Your task to perform on an android device: toggle notifications settings in the gmail app Image 0: 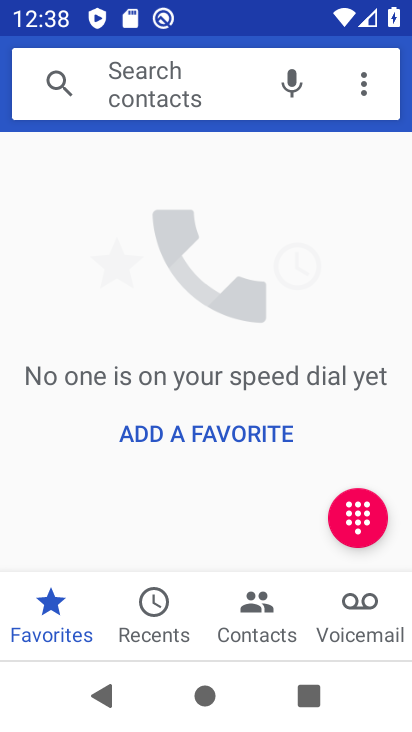
Step 0: press home button
Your task to perform on an android device: toggle notifications settings in the gmail app Image 1: 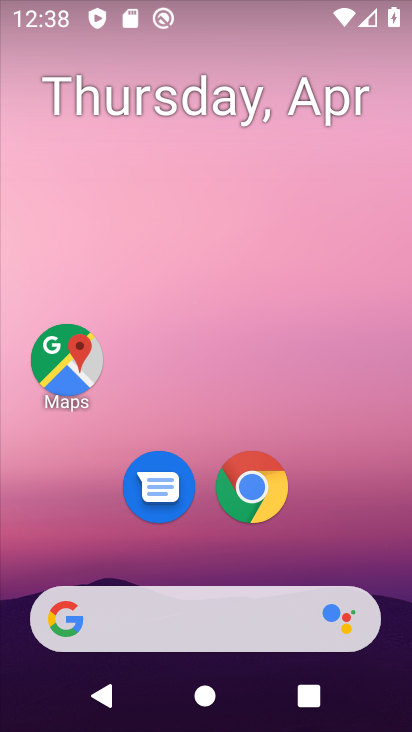
Step 1: drag from (318, 499) to (352, 146)
Your task to perform on an android device: toggle notifications settings in the gmail app Image 2: 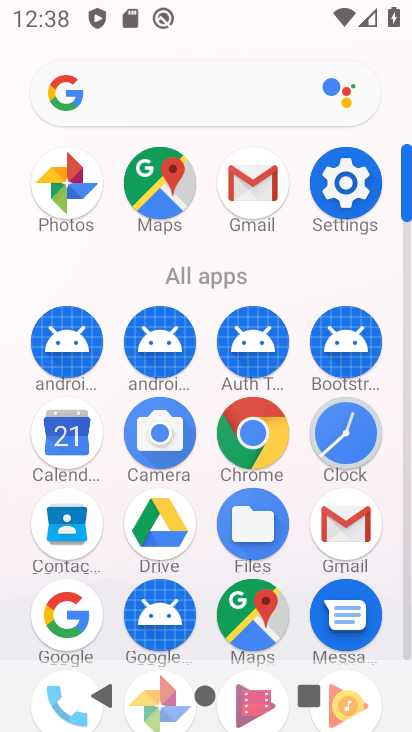
Step 2: click (346, 527)
Your task to perform on an android device: toggle notifications settings in the gmail app Image 3: 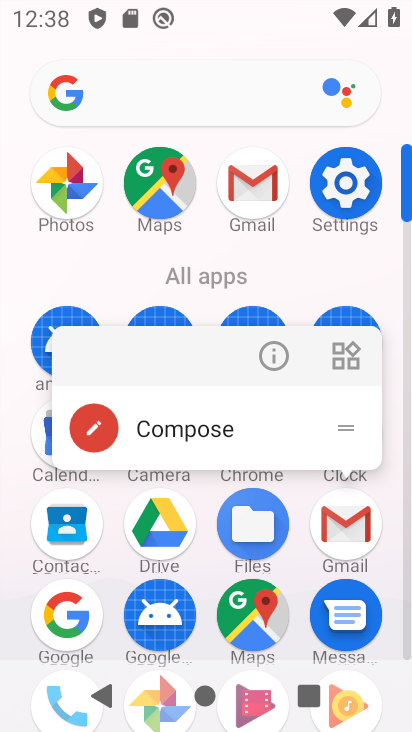
Step 3: click (346, 527)
Your task to perform on an android device: toggle notifications settings in the gmail app Image 4: 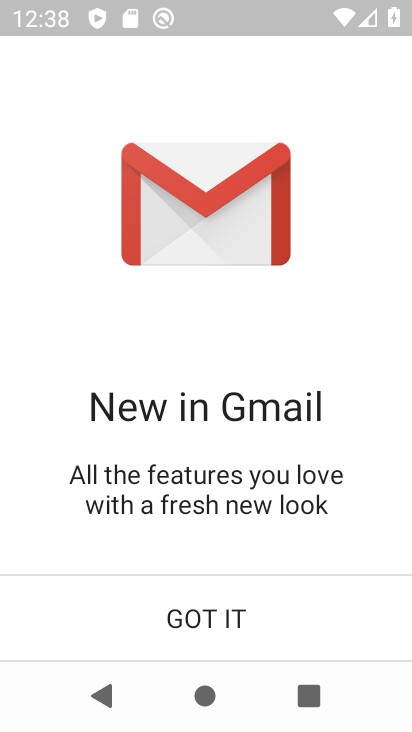
Step 4: click (199, 613)
Your task to perform on an android device: toggle notifications settings in the gmail app Image 5: 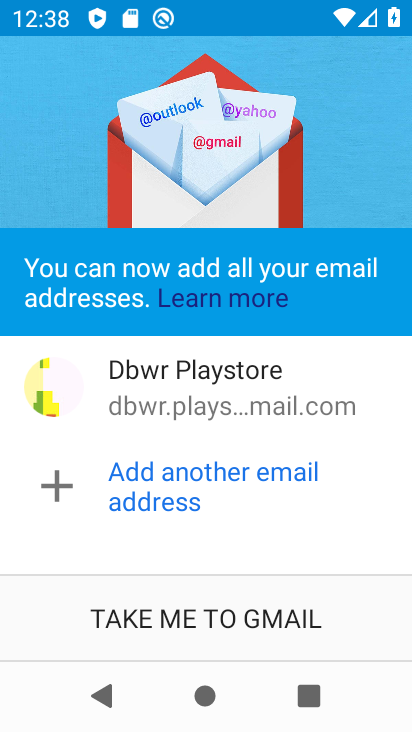
Step 5: click (144, 616)
Your task to perform on an android device: toggle notifications settings in the gmail app Image 6: 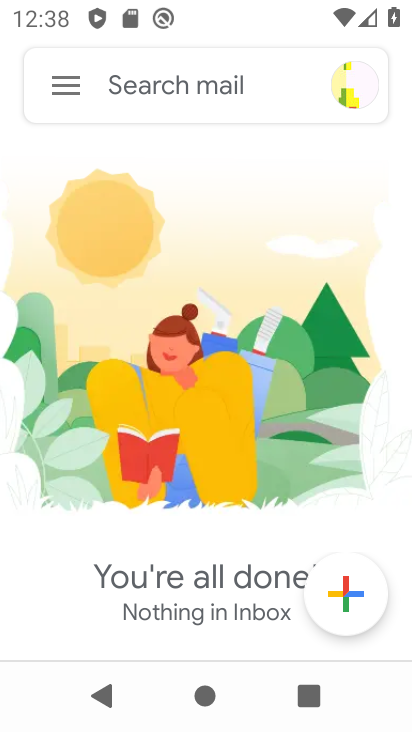
Step 6: click (58, 89)
Your task to perform on an android device: toggle notifications settings in the gmail app Image 7: 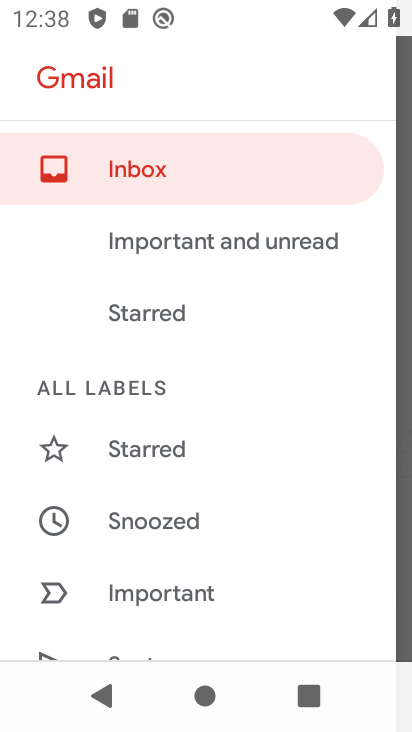
Step 7: drag from (137, 565) to (144, 378)
Your task to perform on an android device: toggle notifications settings in the gmail app Image 8: 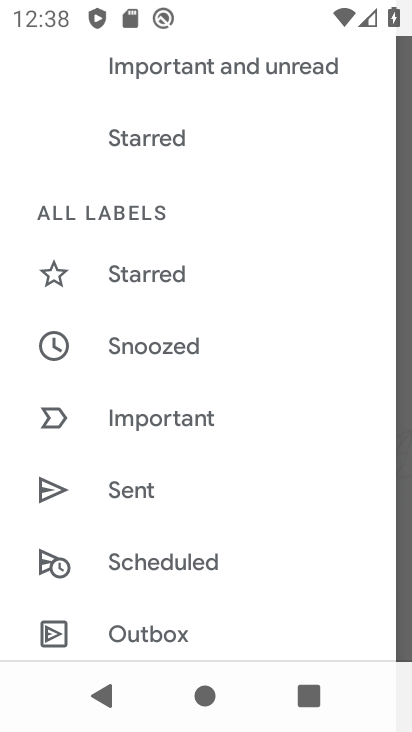
Step 8: drag from (164, 524) to (213, 359)
Your task to perform on an android device: toggle notifications settings in the gmail app Image 9: 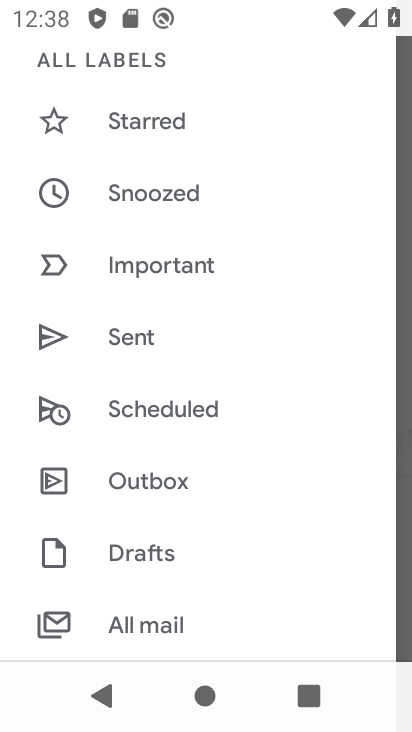
Step 9: drag from (158, 613) to (169, 426)
Your task to perform on an android device: toggle notifications settings in the gmail app Image 10: 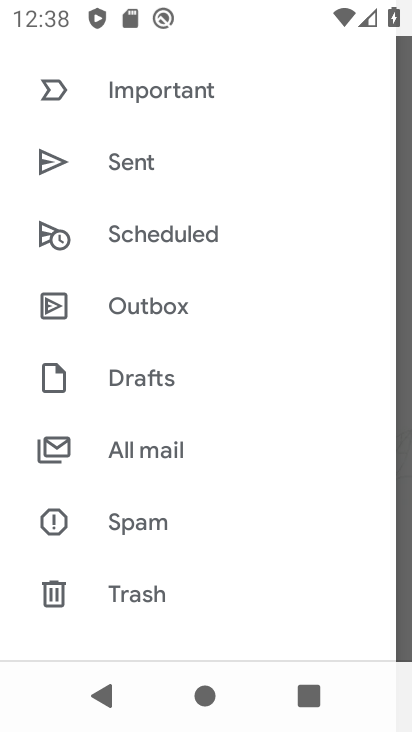
Step 10: drag from (187, 567) to (251, 322)
Your task to perform on an android device: toggle notifications settings in the gmail app Image 11: 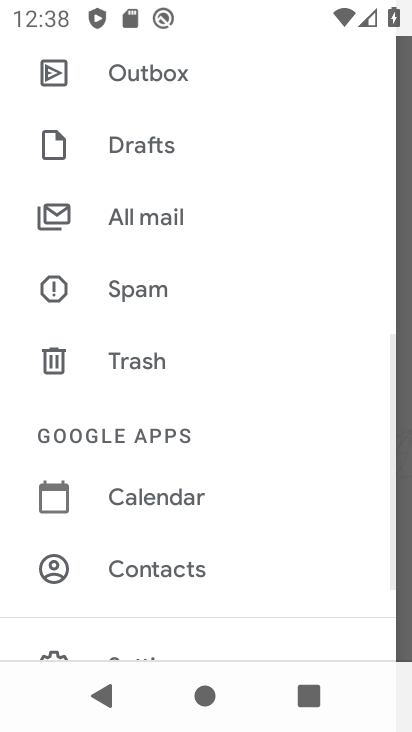
Step 11: drag from (213, 534) to (240, 378)
Your task to perform on an android device: toggle notifications settings in the gmail app Image 12: 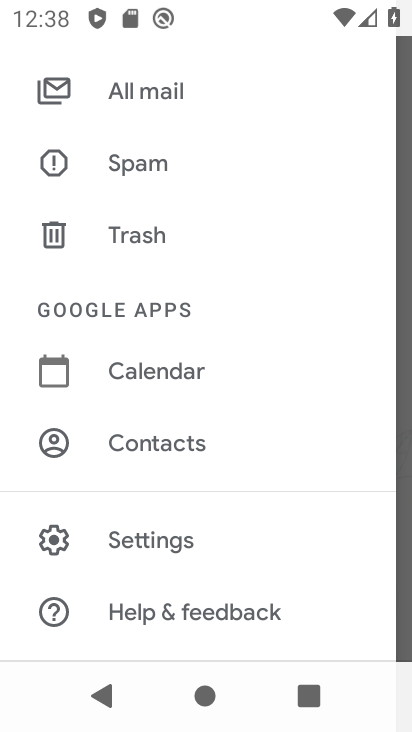
Step 12: click (207, 528)
Your task to perform on an android device: toggle notifications settings in the gmail app Image 13: 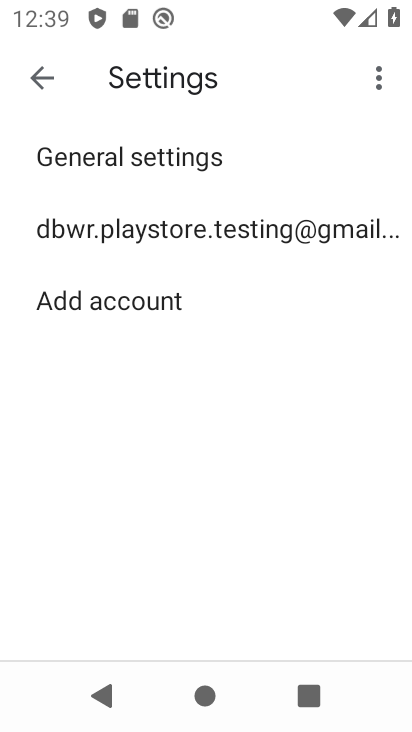
Step 13: click (183, 232)
Your task to perform on an android device: toggle notifications settings in the gmail app Image 14: 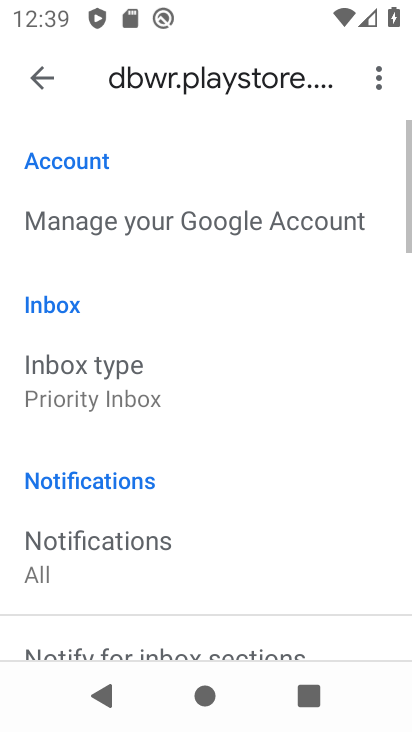
Step 14: drag from (142, 495) to (165, 336)
Your task to perform on an android device: toggle notifications settings in the gmail app Image 15: 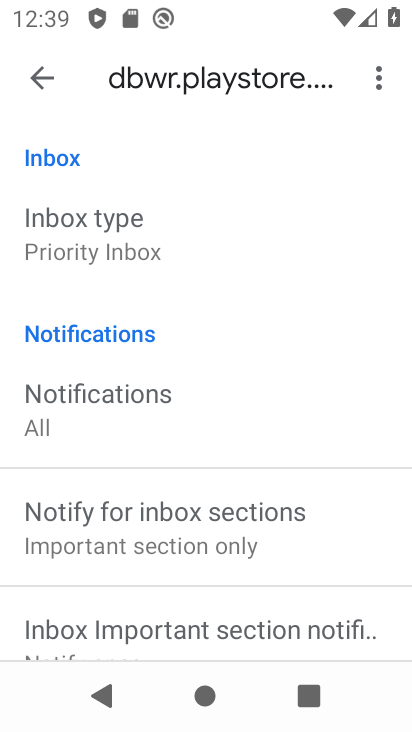
Step 15: drag from (157, 442) to (177, 287)
Your task to perform on an android device: toggle notifications settings in the gmail app Image 16: 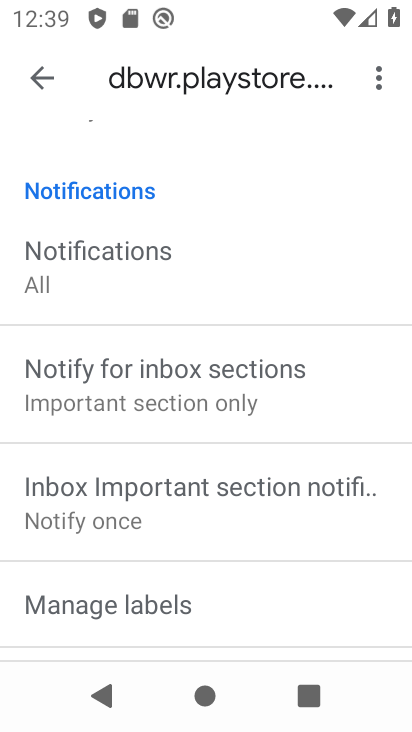
Step 16: drag from (175, 426) to (207, 241)
Your task to perform on an android device: toggle notifications settings in the gmail app Image 17: 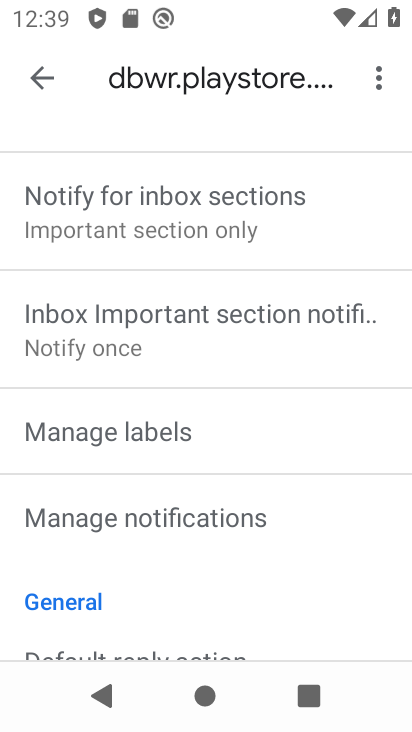
Step 17: click (170, 529)
Your task to perform on an android device: toggle notifications settings in the gmail app Image 18: 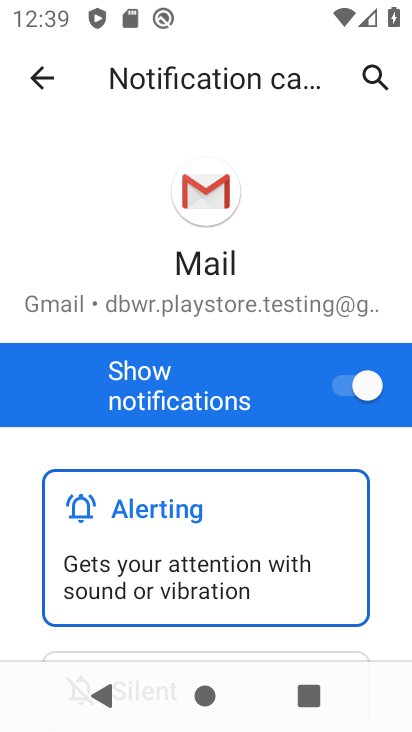
Step 18: click (362, 393)
Your task to perform on an android device: toggle notifications settings in the gmail app Image 19: 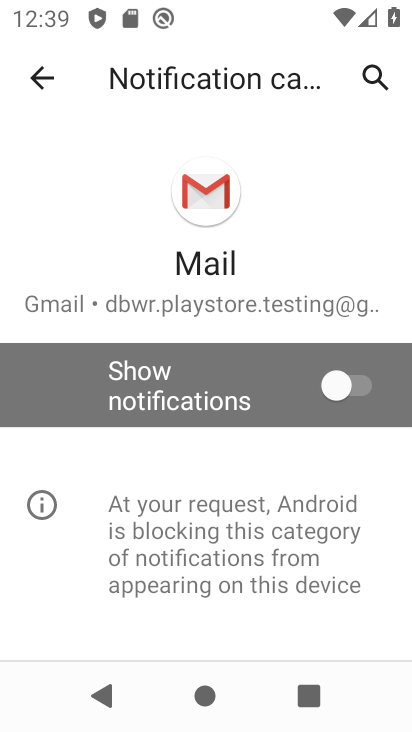
Step 19: task complete